Your task to perform on an android device: Go to calendar. Show me events next week Image 0: 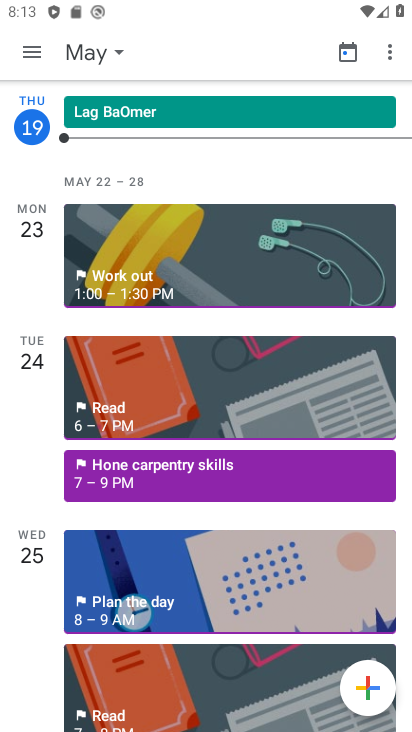
Step 0: click (208, 218)
Your task to perform on an android device: Go to calendar. Show me events next week Image 1: 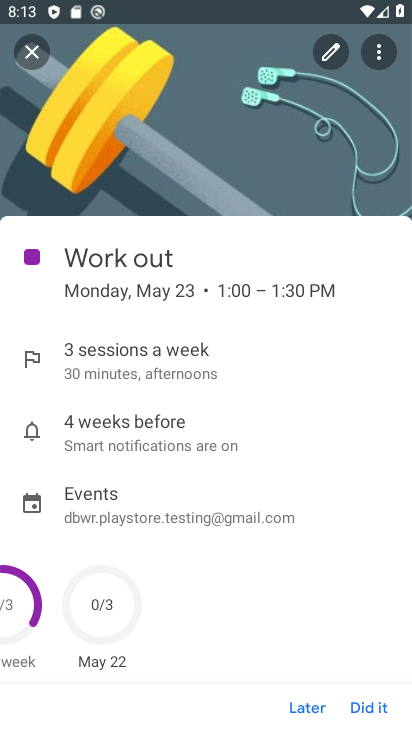
Step 1: click (303, 720)
Your task to perform on an android device: Go to calendar. Show me events next week Image 2: 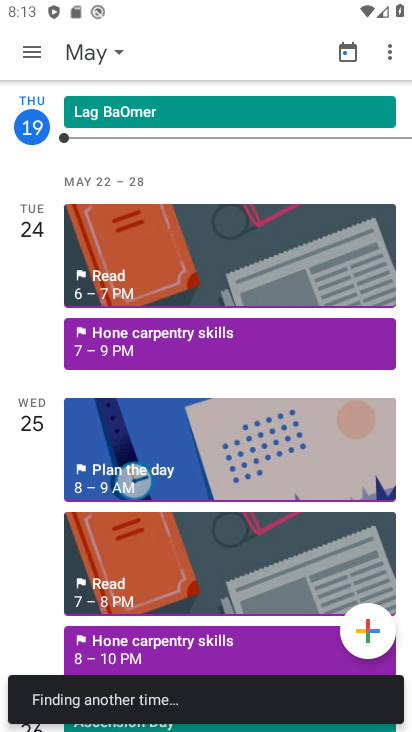
Step 2: click (310, 706)
Your task to perform on an android device: Go to calendar. Show me events next week Image 3: 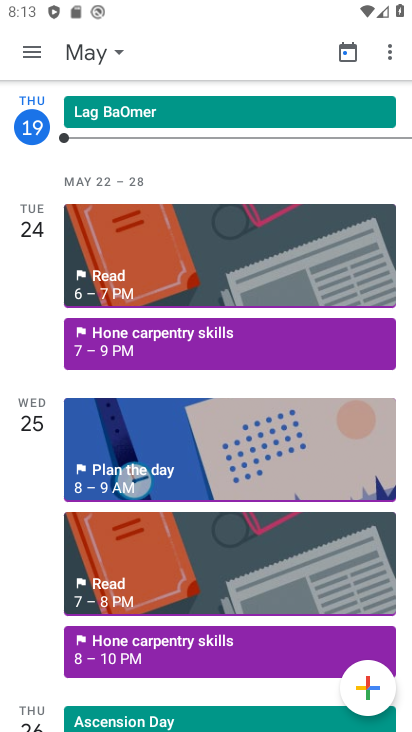
Step 3: click (78, 49)
Your task to perform on an android device: Go to calendar. Show me events next week Image 4: 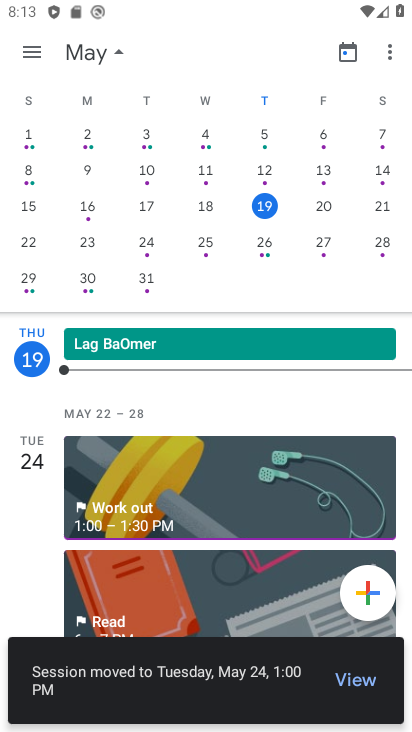
Step 4: click (24, 43)
Your task to perform on an android device: Go to calendar. Show me events next week Image 5: 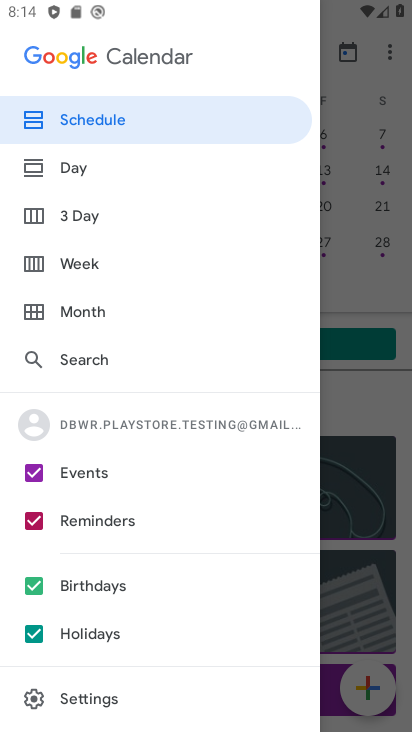
Step 5: click (54, 262)
Your task to perform on an android device: Go to calendar. Show me events next week Image 6: 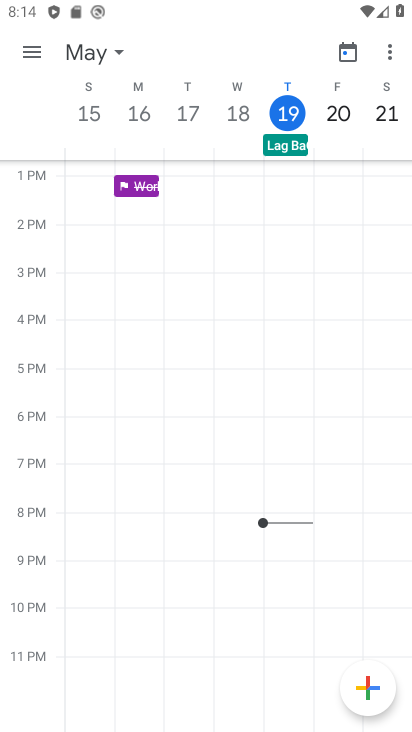
Step 6: click (92, 57)
Your task to perform on an android device: Go to calendar. Show me events next week Image 7: 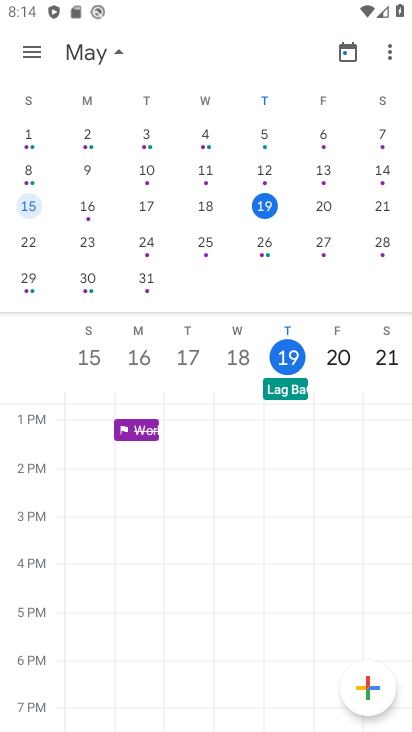
Step 7: click (264, 233)
Your task to perform on an android device: Go to calendar. Show me events next week Image 8: 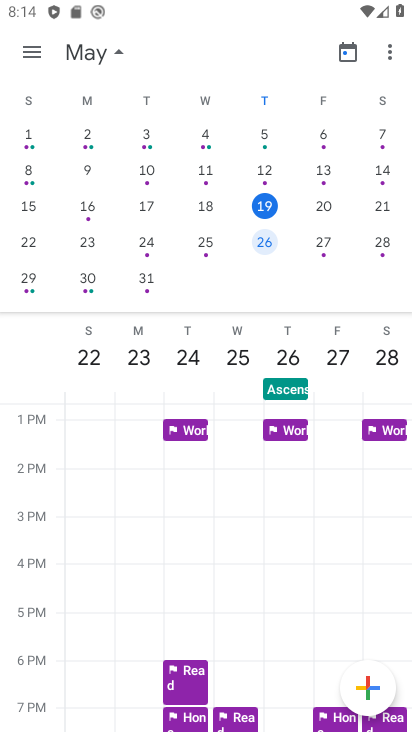
Step 8: click (264, 233)
Your task to perform on an android device: Go to calendar. Show me events next week Image 9: 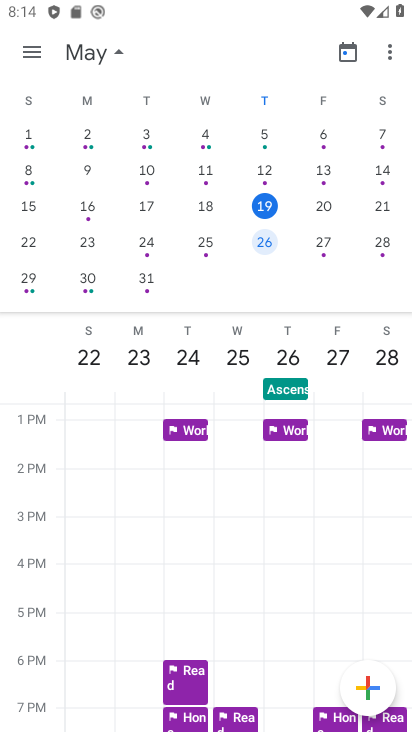
Step 9: task complete